Your task to perform on an android device: What's the weather today? Image 0: 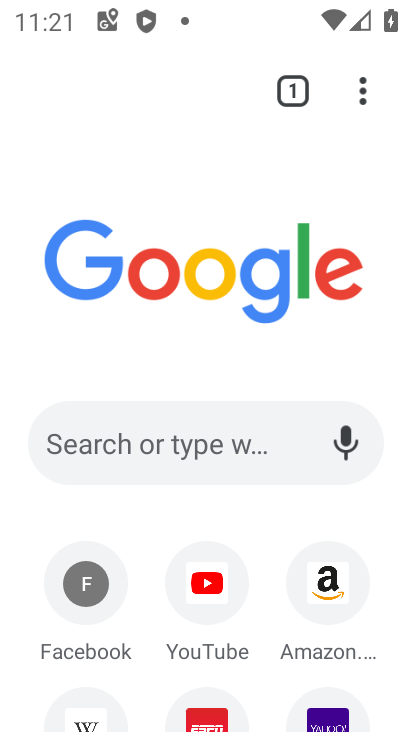
Step 0: press home button
Your task to perform on an android device: What's the weather today? Image 1: 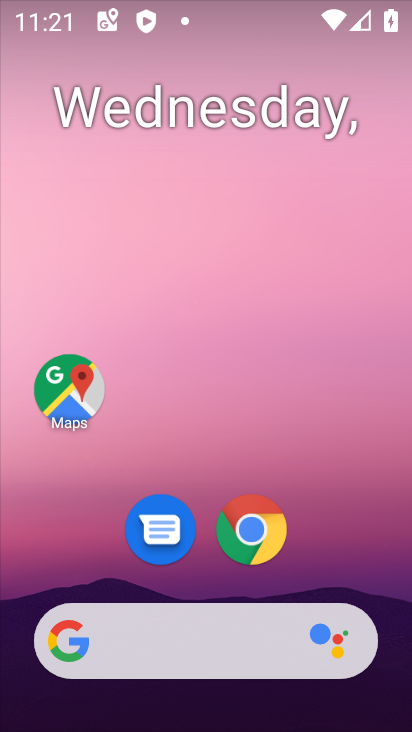
Step 1: drag from (209, 576) to (216, 48)
Your task to perform on an android device: What's the weather today? Image 2: 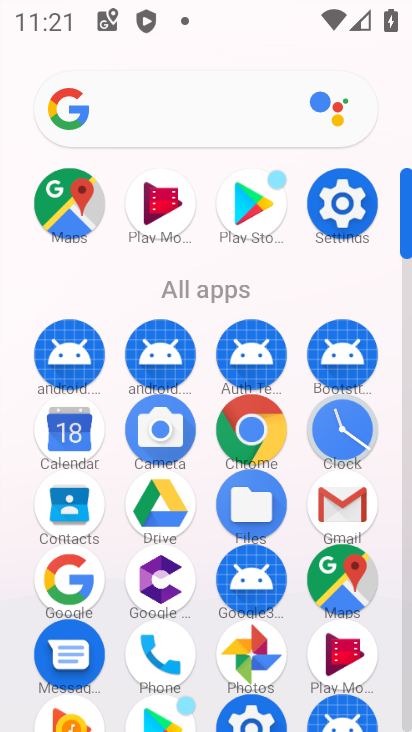
Step 2: drag from (201, 629) to (238, 1)
Your task to perform on an android device: What's the weather today? Image 3: 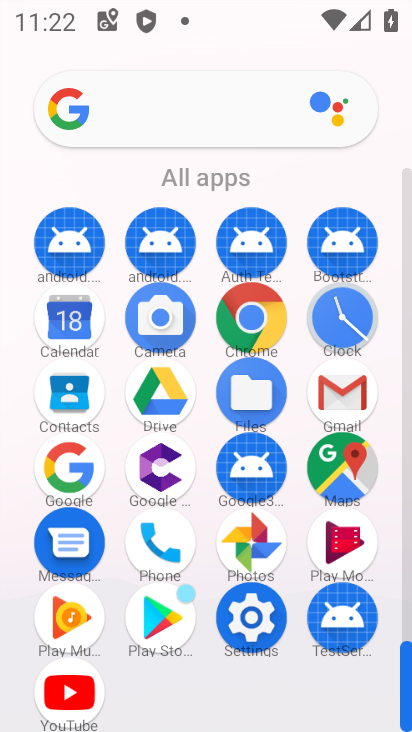
Step 3: click (73, 456)
Your task to perform on an android device: What's the weather today? Image 4: 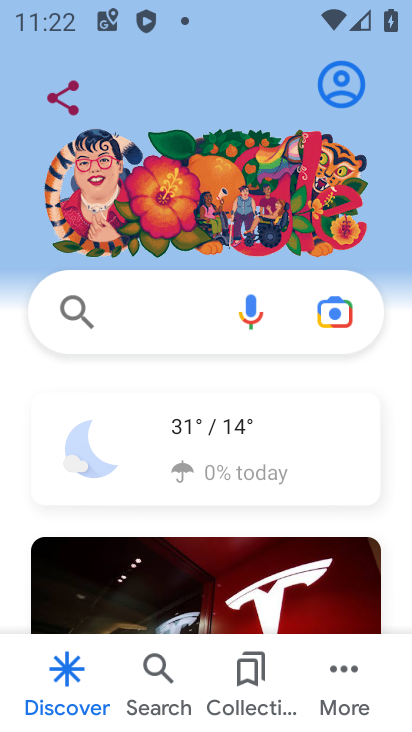
Step 4: click (179, 315)
Your task to perform on an android device: What's the weather today? Image 5: 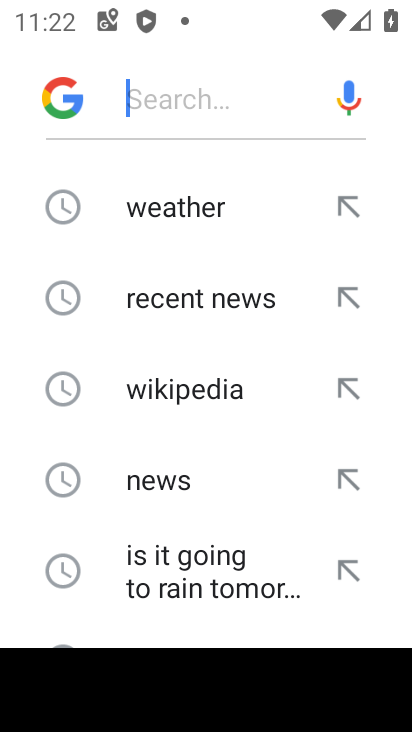
Step 5: click (151, 226)
Your task to perform on an android device: What's the weather today? Image 6: 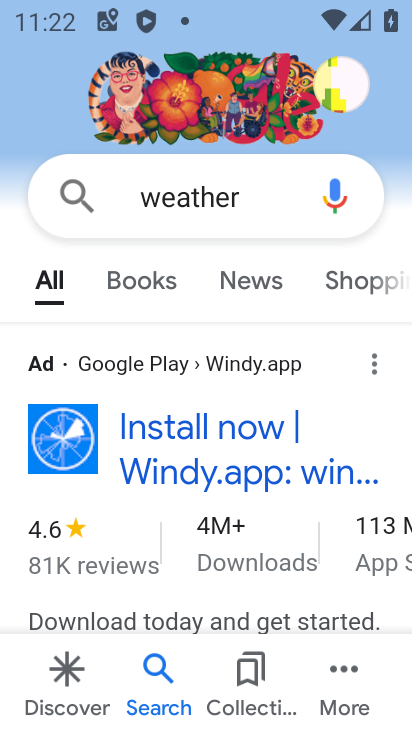
Step 6: task complete